Your task to perform on an android device: Turn on the flashlight Image 0: 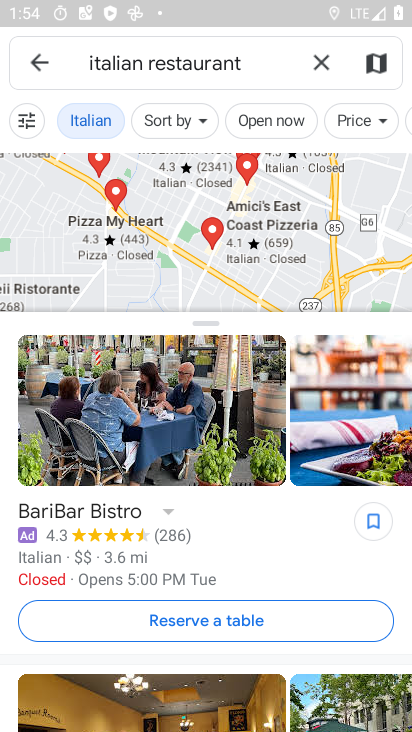
Step 0: press home button
Your task to perform on an android device: Turn on the flashlight Image 1: 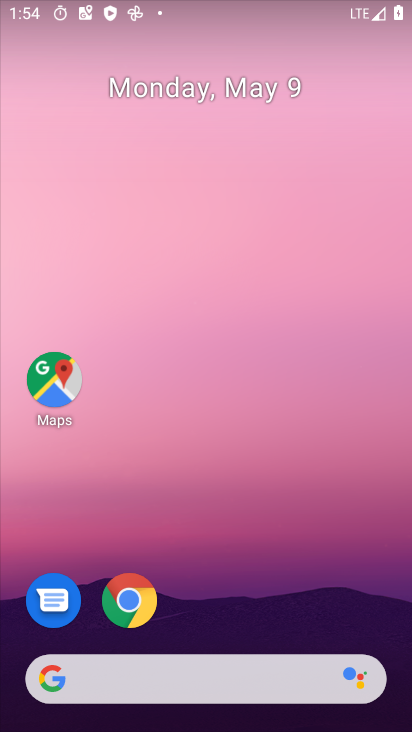
Step 1: drag from (181, 501) to (252, 112)
Your task to perform on an android device: Turn on the flashlight Image 2: 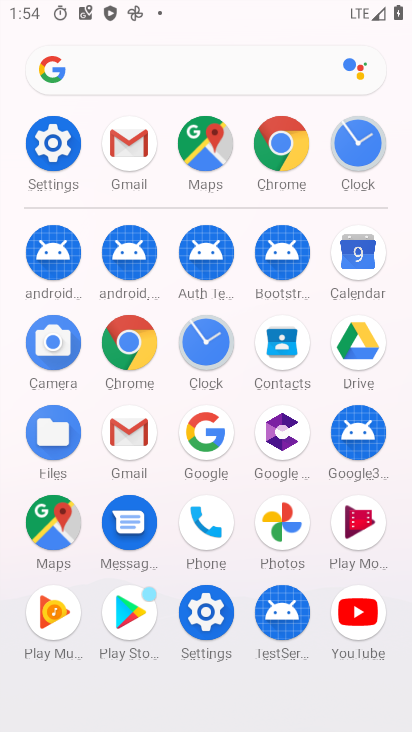
Step 2: click (217, 609)
Your task to perform on an android device: Turn on the flashlight Image 3: 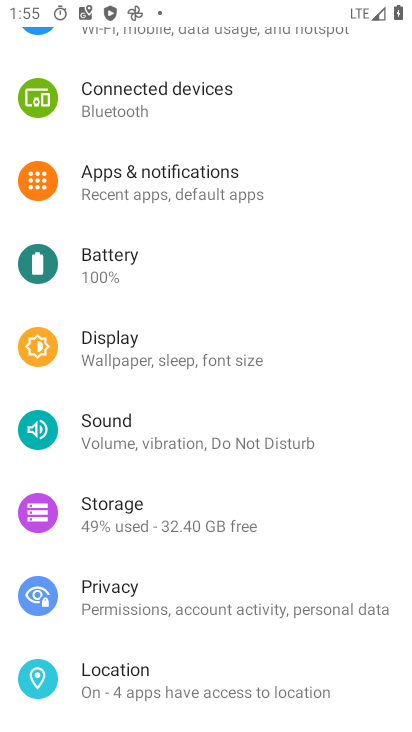
Step 3: task complete